Your task to perform on an android device: Open Reddit.com Image 0: 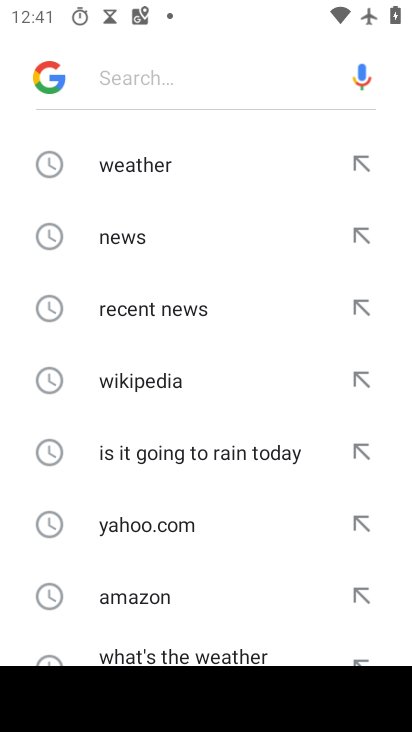
Step 0: press home button
Your task to perform on an android device: Open Reddit.com Image 1: 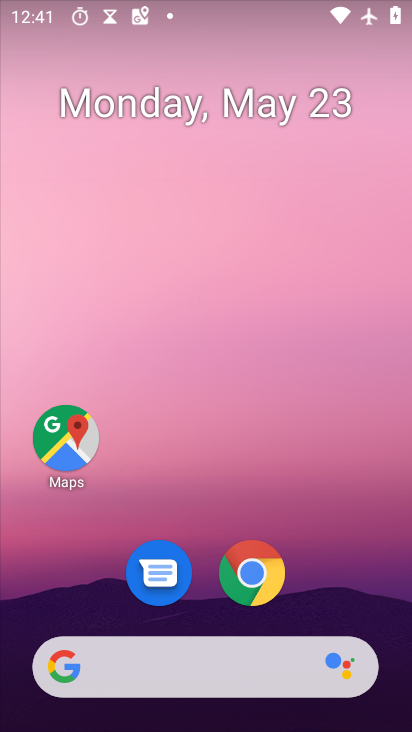
Step 1: click (266, 588)
Your task to perform on an android device: Open Reddit.com Image 2: 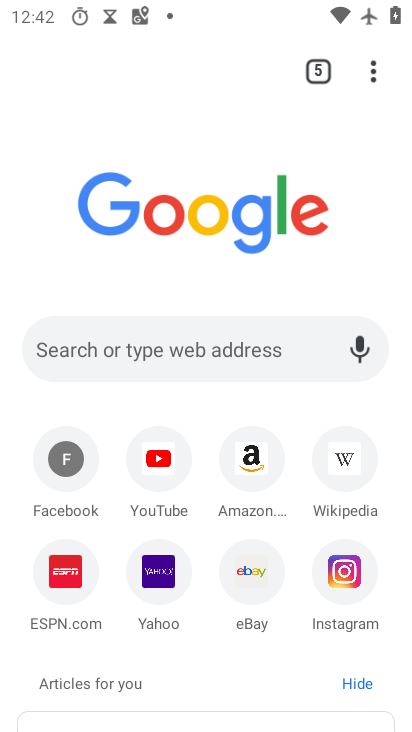
Step 2: click (181, 346)
Your task to perform on an android device: Open Reddit.com Image 3: 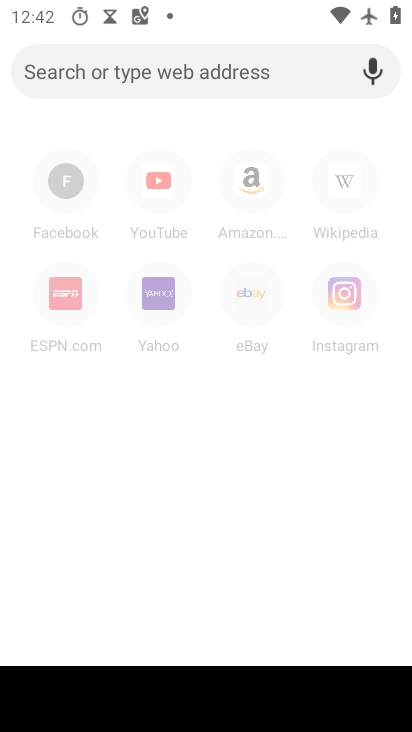
Step 3: type "reddit.com"
Your task to perform on an android device: Open Reddit.com Image 4: 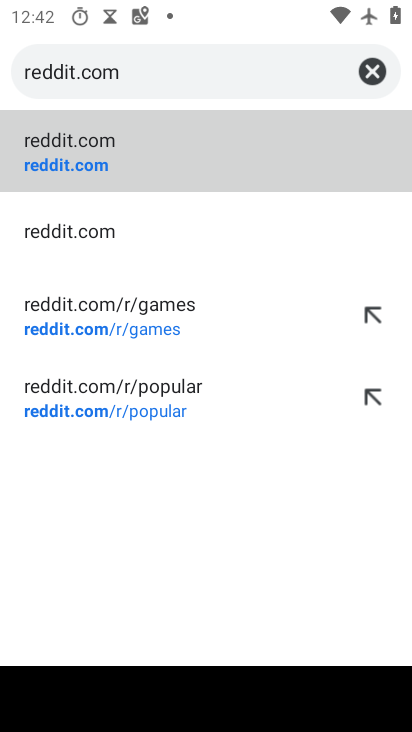
Step 4: click (138, 159)
Your task to perform on an android device: Open Reddit.com Image 5: 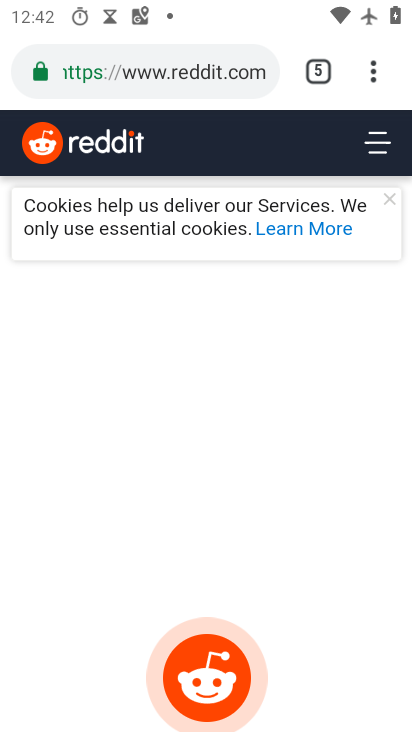
Step 5: task complete